Your task to perform on an android device: Go to eBay Image 0: 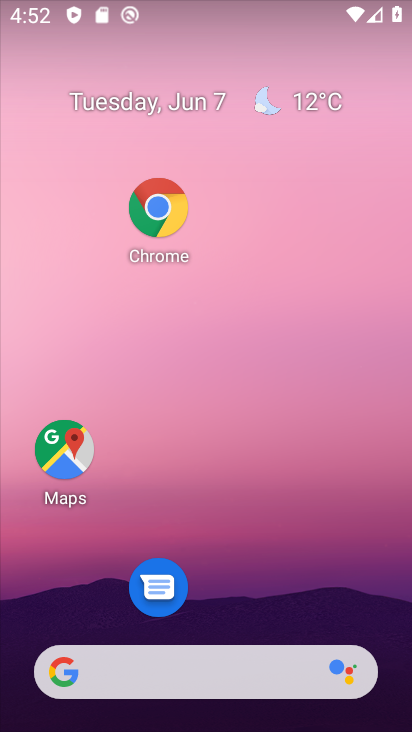
Step 0: click (135, 56)
Your task to perform on an android device: Go to eBay Image 1: 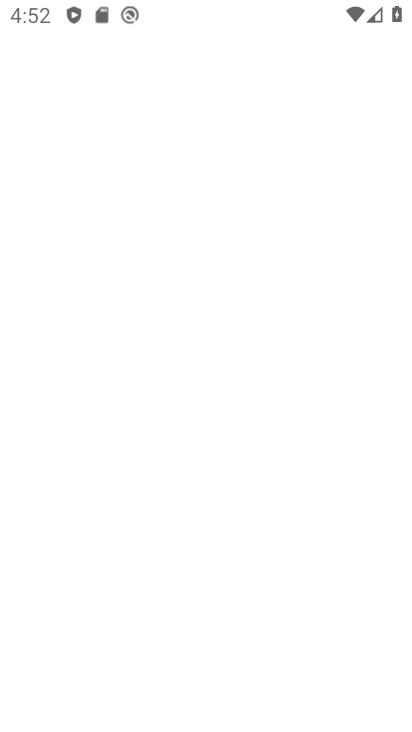
Step 1: drag from (307, 586) to (229, 219)
Your task to perform on an android device: Go to eBay Image 2: 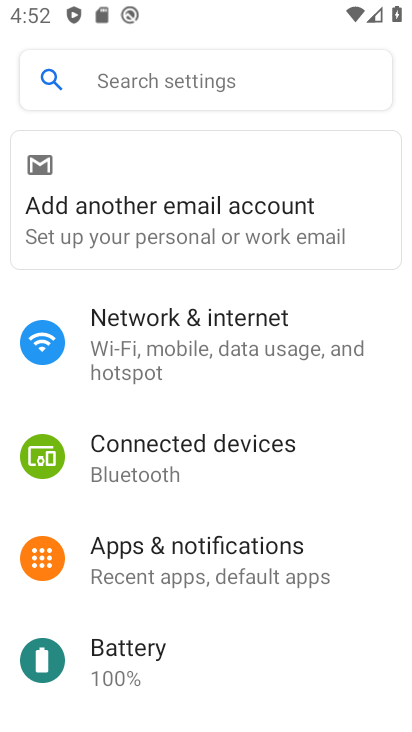
Step 2: drag from (196, 505) to (177, 233)
Your task to perform on an android device: Go to eBay Image 3: 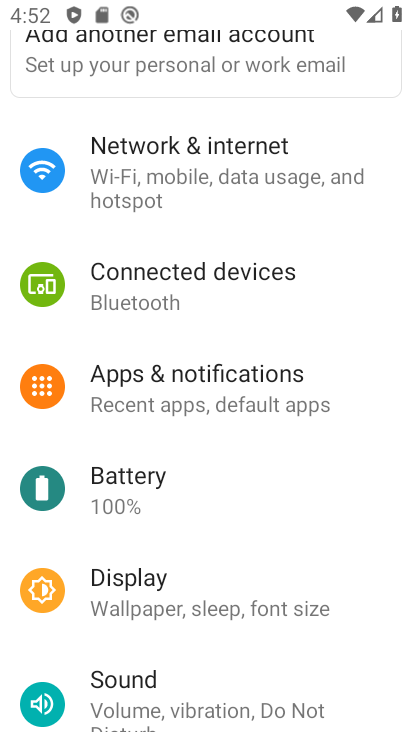
Step 3: drag from (210, 423) to (184, 172)
Your task to perform on an android device: Go to eBay Image 4: 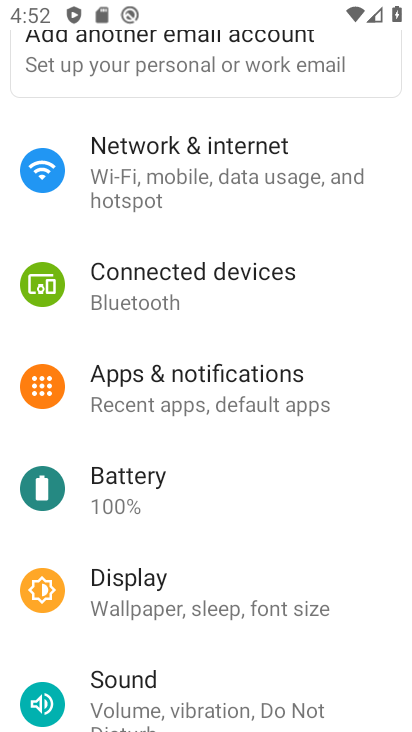
Step 4: drag from (255, 489) to (224, 309)
Your task to perform on an android device: Go to eBay Image 5: 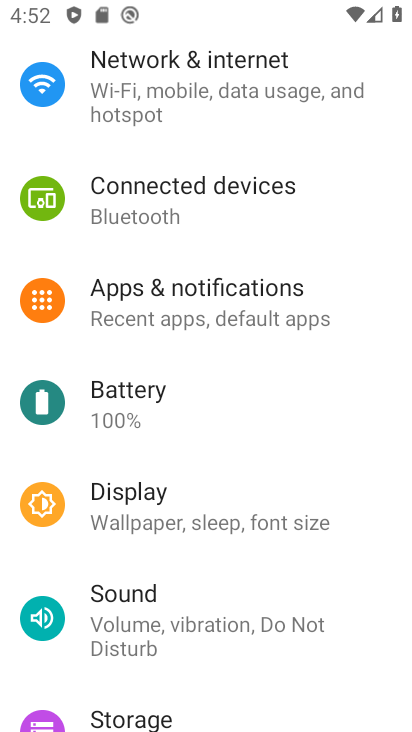
Step 5: press back button
Your task to perform on an android device: Go to eBay Image 6: 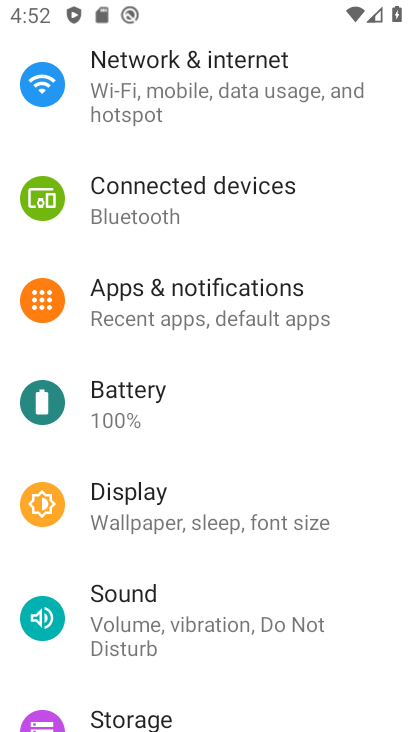
Step 6: press back button
Your task to perform on an android device: Go to eBay Image 7: 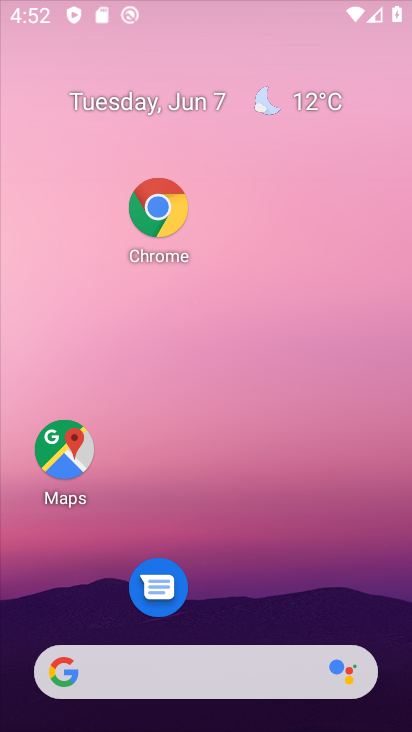
Step 7: press back button
Your task to perform on an android device: Go to eBay Image 8: 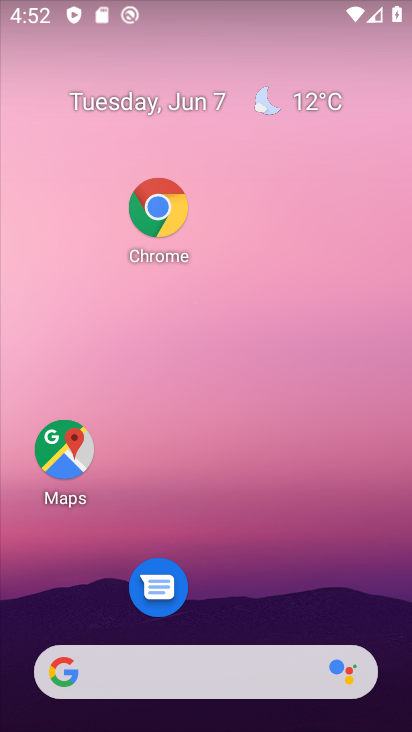
Step 8: drag from (201, 350) to (136, 93)
Your task to perform on an android device: Go to eBay Image 9: 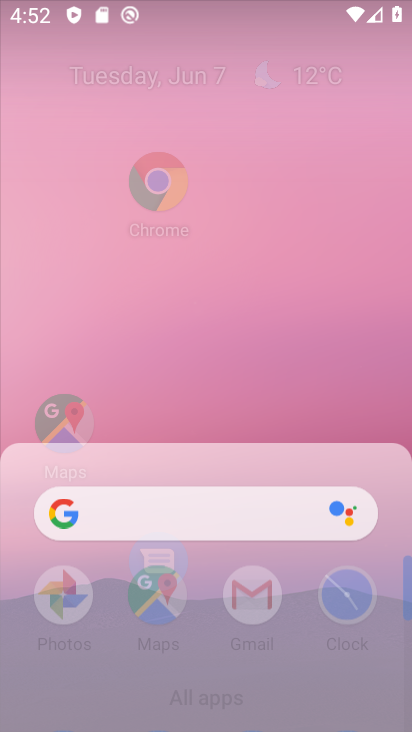
Step 9: drag from (329, 553) to (261, 305)
Your task to perform on an android device: Go to eBay Image 10: 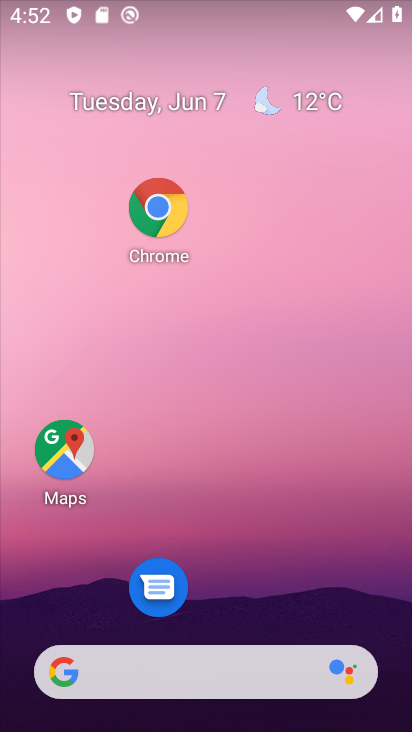
Step 10: drag from (298, 505) to (191, 145)
Your task to perform on an android device: Go to eBay Image 11: 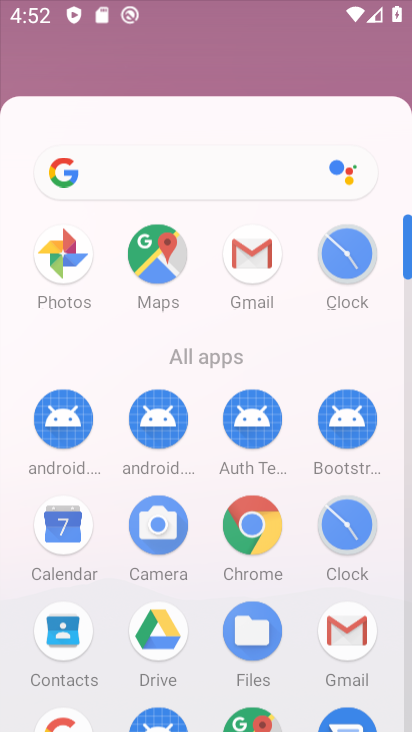
Step 11: drag from (235, 448) to (163, 127)
Your task to perform on an android device: Go to eBay Image 12: 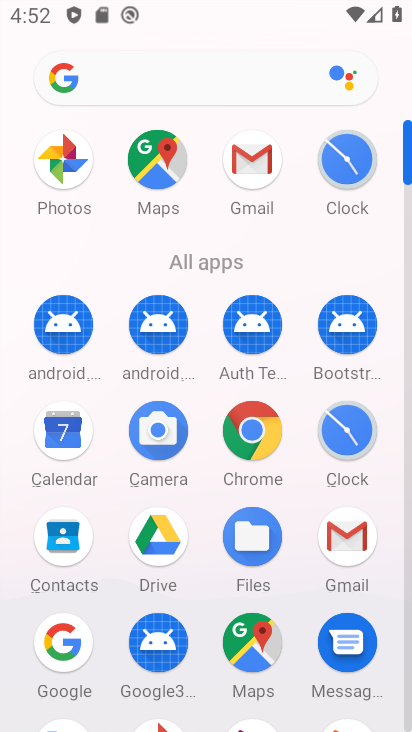
Step 12: click (219, 282)
Your task to perform on an android device: Go to eBay Image 13: 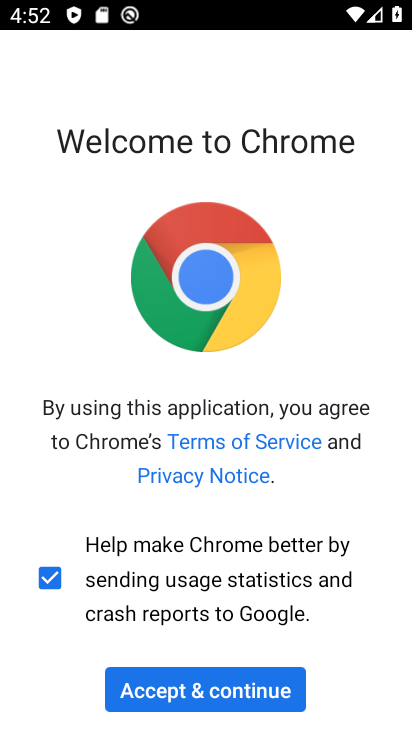
Step 13: click (221, 678)
Your task to perform on an android device: Go to eBay Image 14: 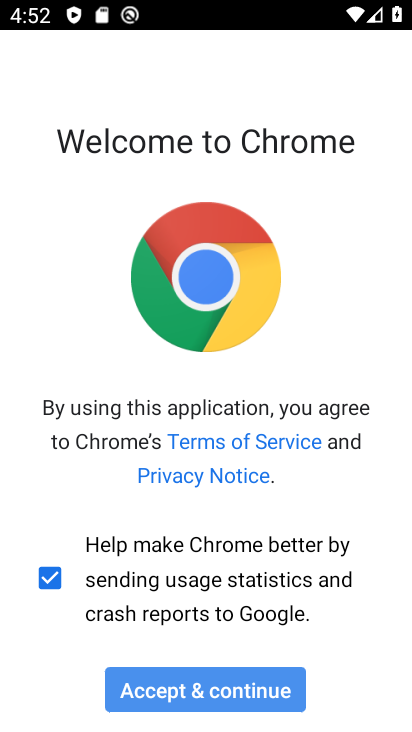
Step 14: click (221, 678)
Your task to perform on an android device: Go to eBay Image 15: 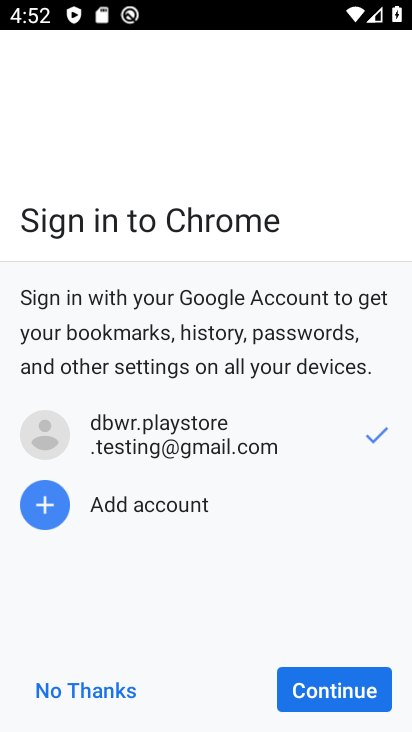
Step 15: click (221, 678)
Your task to perform on an android device: Go to eBay Image 16: 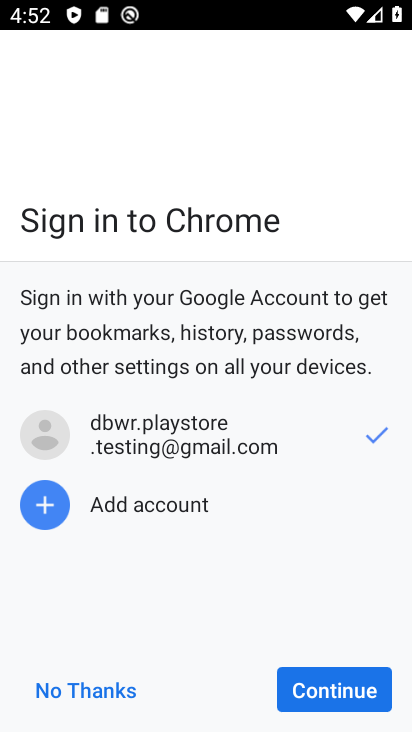
Step 16: click (222, 679)
Your task to perform on an android device: Go to eBay Image 17: 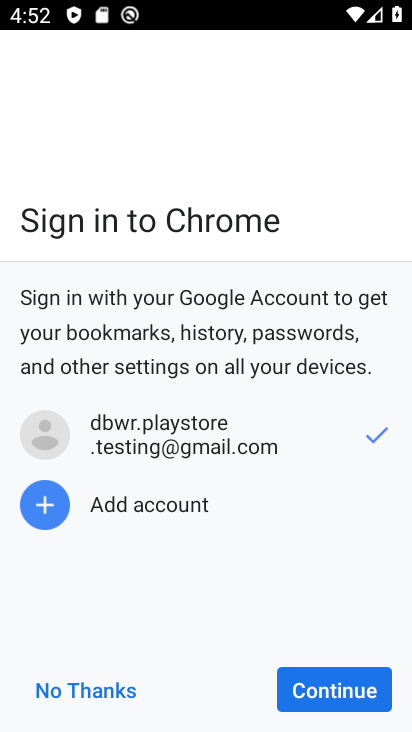
Step 17: click (316, 688)
Your task to perform on an android device: Go to eBay Image 18: 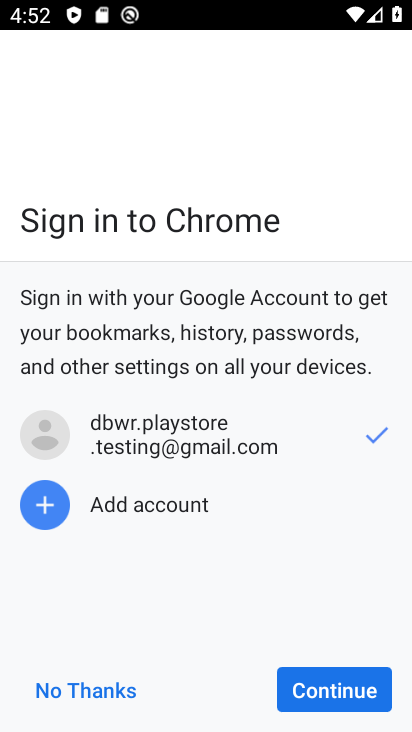
Step 18: click (316, 688)
Your task to perform on an android device: Go to eBay Image 19: 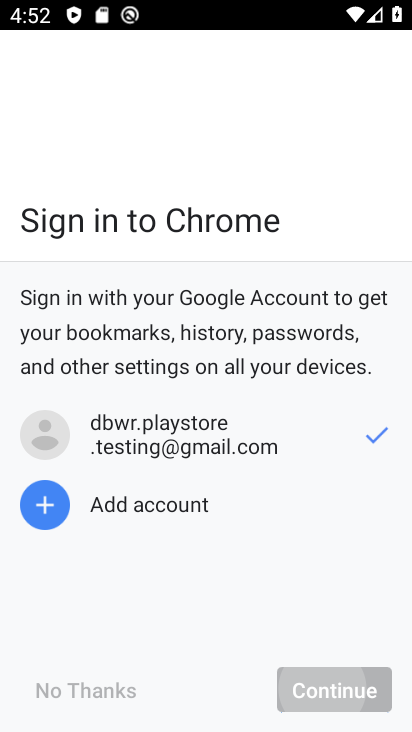
Step 19: click (360, 691)
Your task to perform on an android device: Go to eBay Image 20: 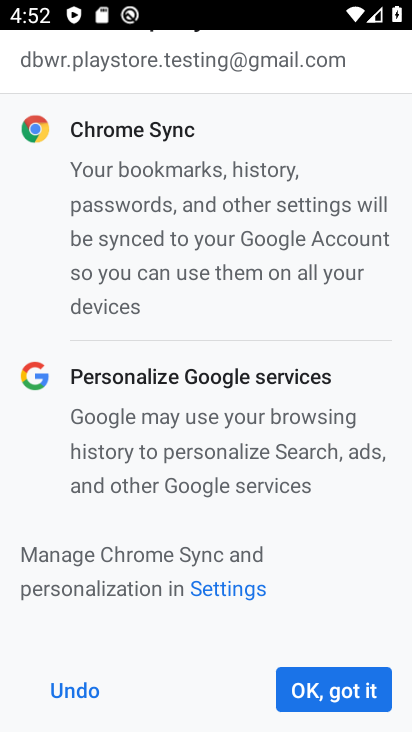
Step 20: click (360, 690)
Your task to perform on an android device: Go to eBay Image 21: 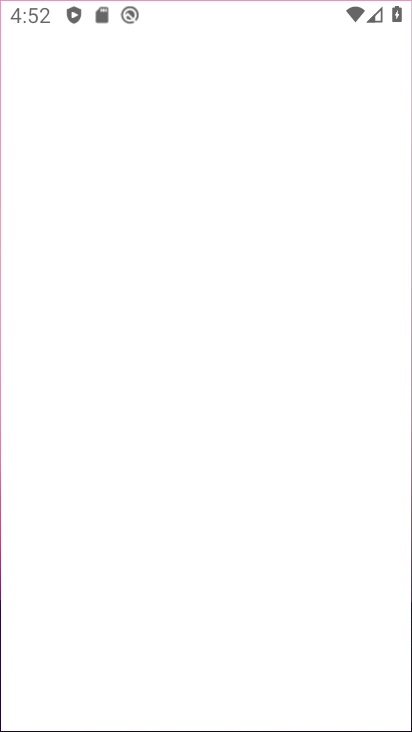
Step 21: click (340, 699)
Your task to perform on an android device: Go to eBay Image 22: 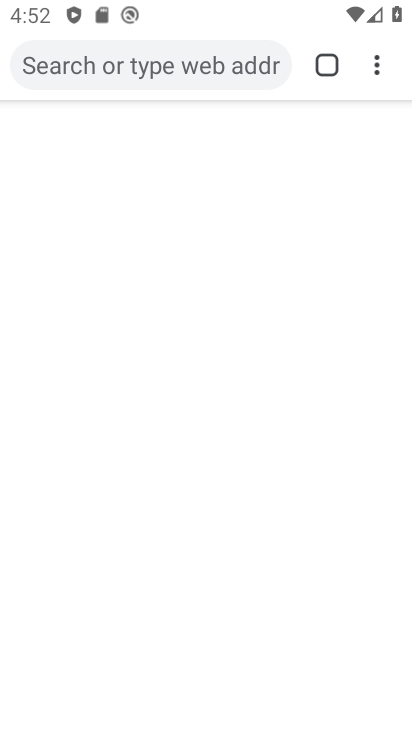
Step 22: click (380, 68)
Your task to perform on an android device: Go to eBay Image 23: 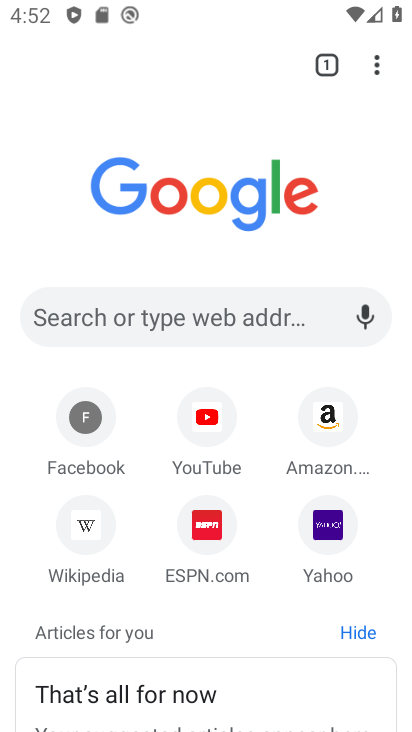
Step 23: click (366, 65)
Your task to perform on an android device: Go to eBay Image 24: 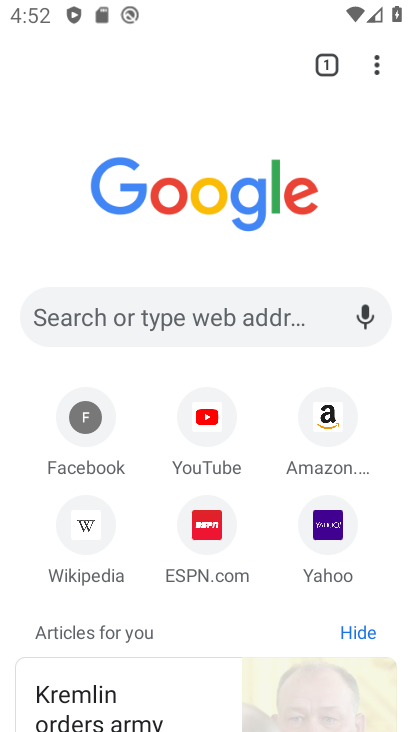
Step 24: click (69, 153)
Your task to perform on an android device: Go to eBay Image 25: 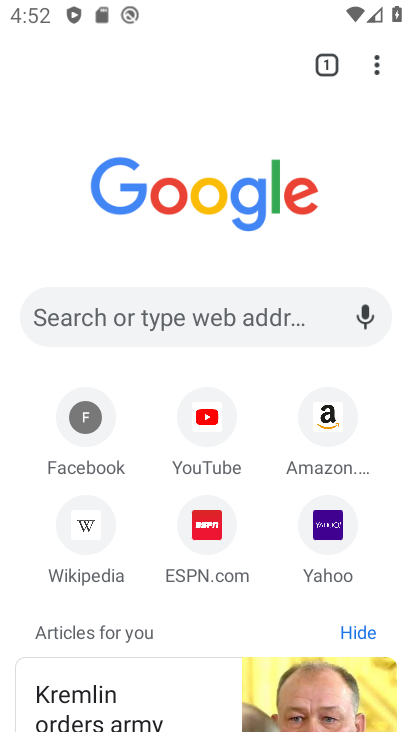
Step 25: click (69, 153)
Your task to perform on an android device: Go to eBay Image 26: 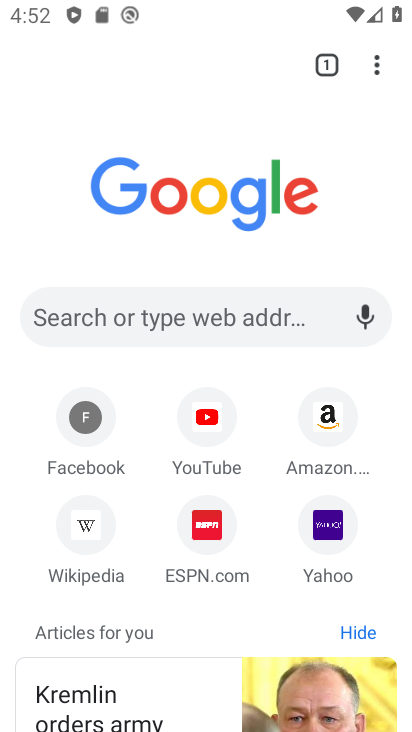
Step 26: click (80, 305)
Your task to perform on an android device: Go to eBay Image 27: 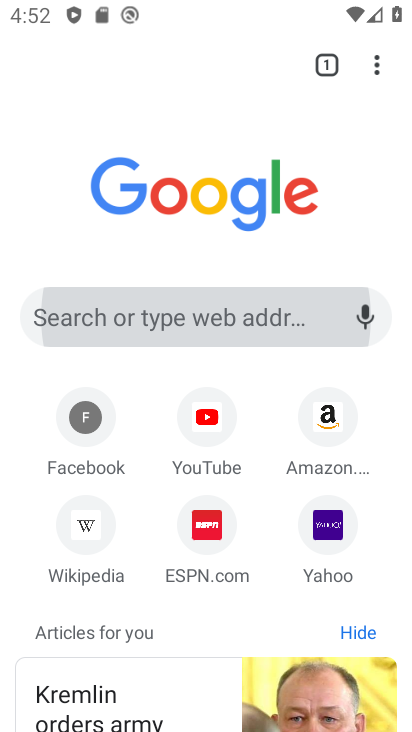
Step 27: click (80, 305)
Your task to perform on an android device: Go to eBay Image 28: 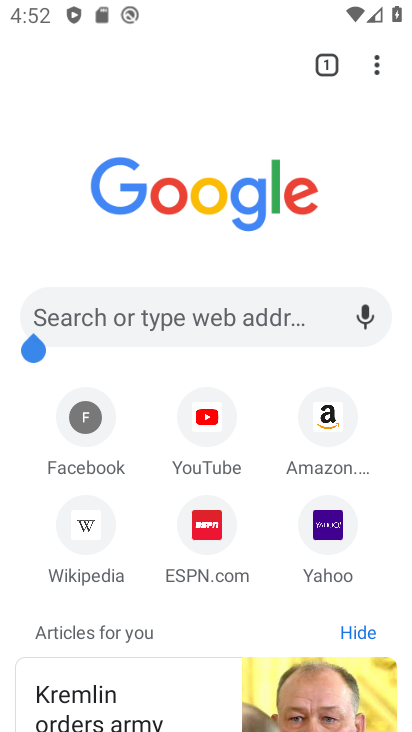
Step 28: click (80, 305)
Your task to perform on an android device: Go to eBay Image 29: 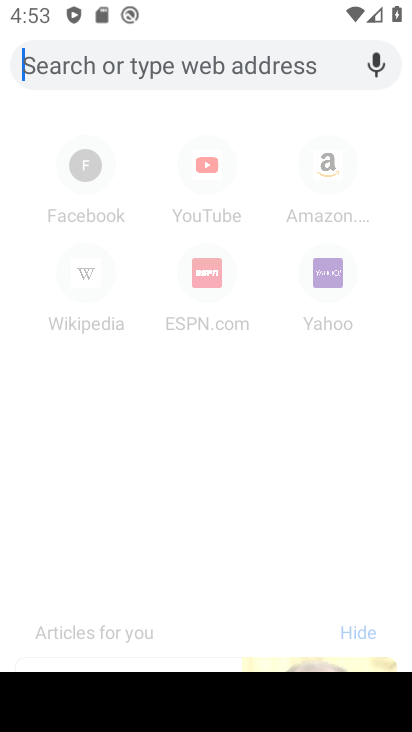
Step 29: type "ebay.com"
Your task to perform on an android device: Go to eBay Image 30: 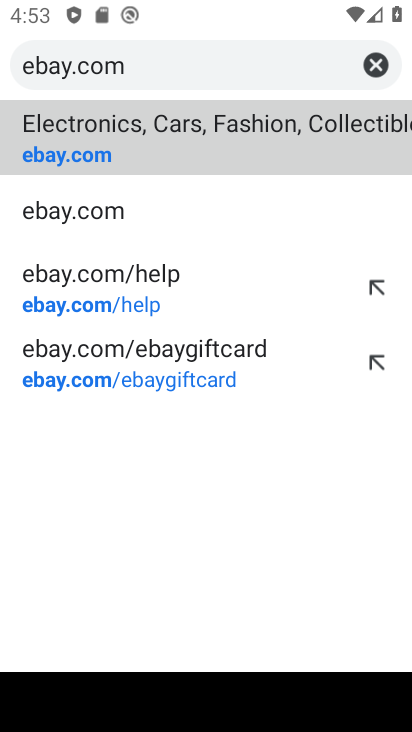
Step 30: click (80, 139)
Your task to perform on an android device: Go to eBay Image 31: 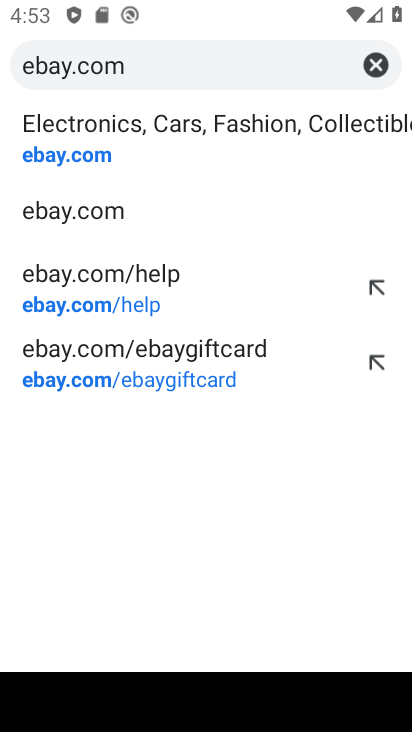
Step 31: task complete